Your task to perform on an android device: Go to Amazon Image 0: 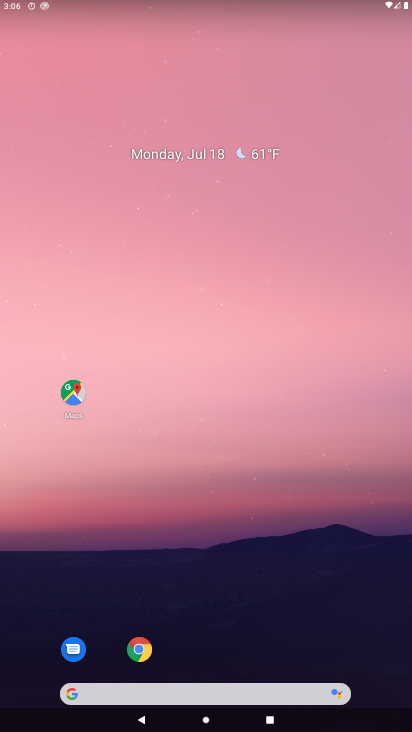
Step 0: click (141, 655)
Your task to perform on an android device: Go to Amazon Image 1: 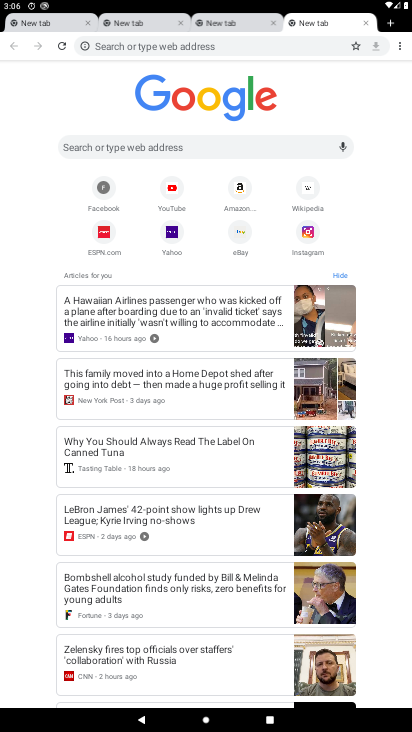
Step 1: press home button
Your task to perform on an android device: Go to Amazon Image 2: 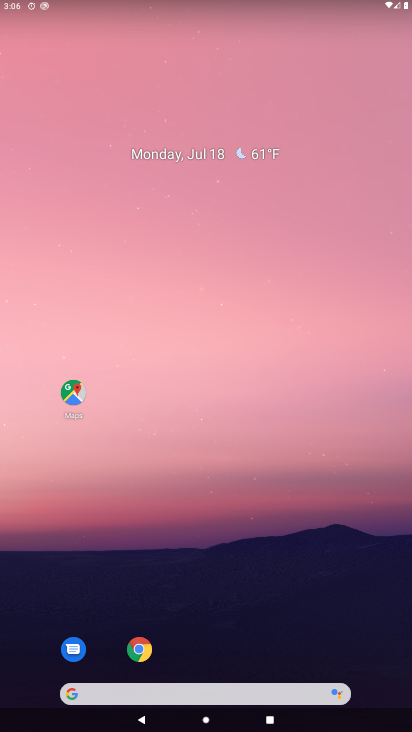
Step 2: click (156, 671)
Your task to perform on an android device: Go to Amazon Image 3: 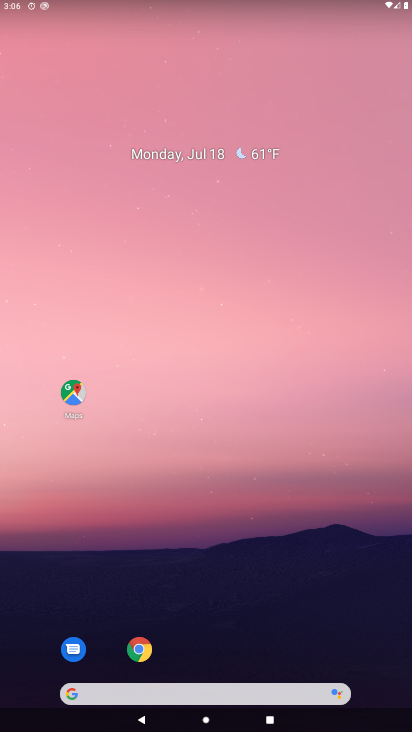
Step 3: click (151, 687)
Your task to perform on an android device: Go to Amazon Image 4: 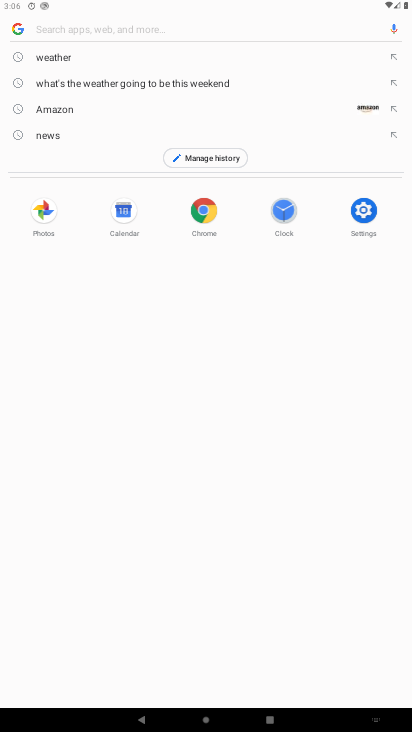
Step 4: click (52, 116)
Your task to perform on an android device: Go to Amazon Image 5: 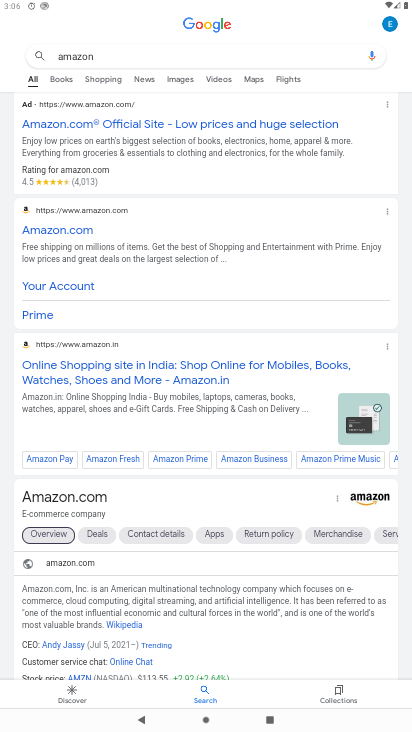
Step 5: task complete